Your task to perform on an android device: Do I have any events this weekend? Image 0: 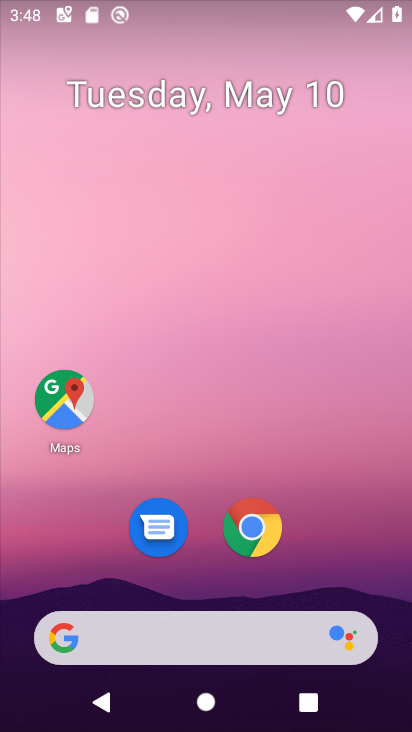
Step 0: drag from (394, 622) to (405, 214)
Your task to perform on an android device: Do I have any events this weekend? Image 1: 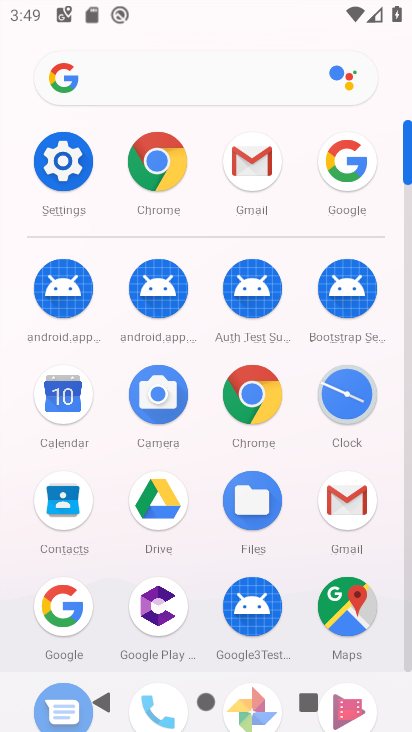
Step 1: click (66, 413)
Your task to perform on an android device: Do I have any events this weekend? Image 2: 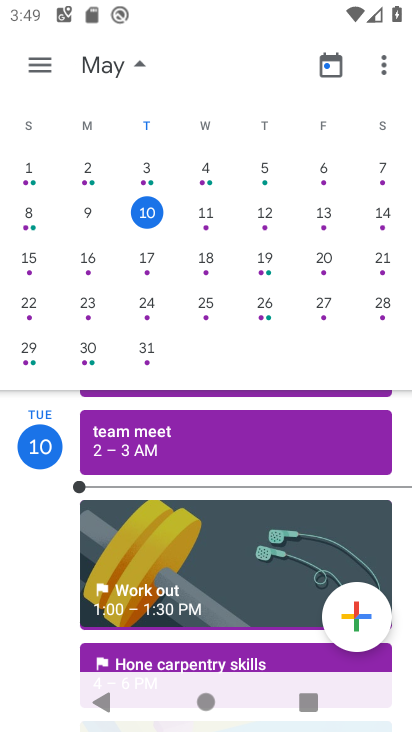
Step 2: click (43, 63)
Your task to perform on an android device: Do I have any events this weekend? Image 3: 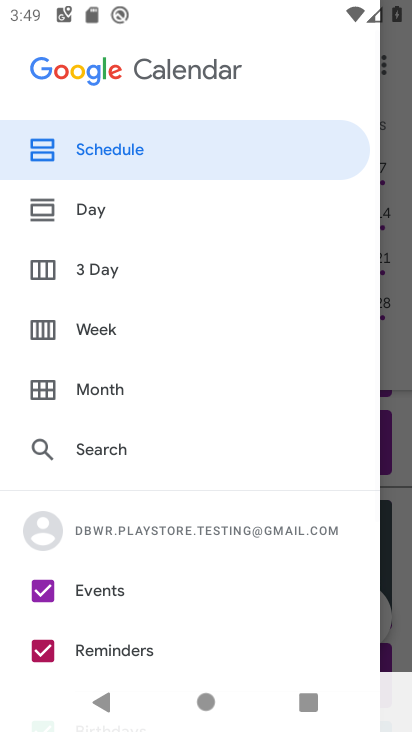
Step 3: click (94, 322)
Your task to perform on an android device: Do I have any events this weekend? Image 4: 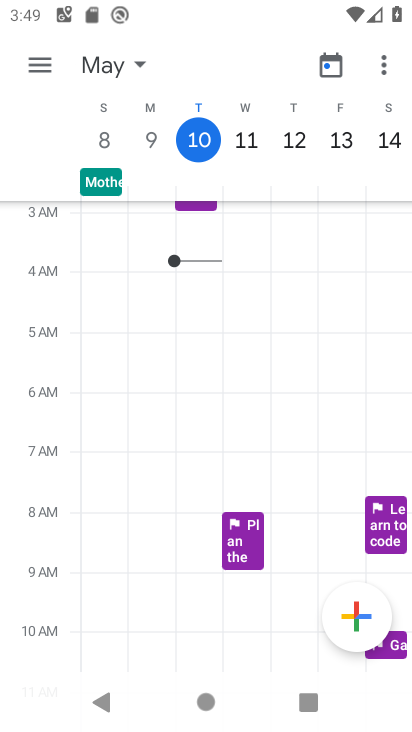
Step 4: task complete